Your task to perform on an android device: change the clock style Image 0: 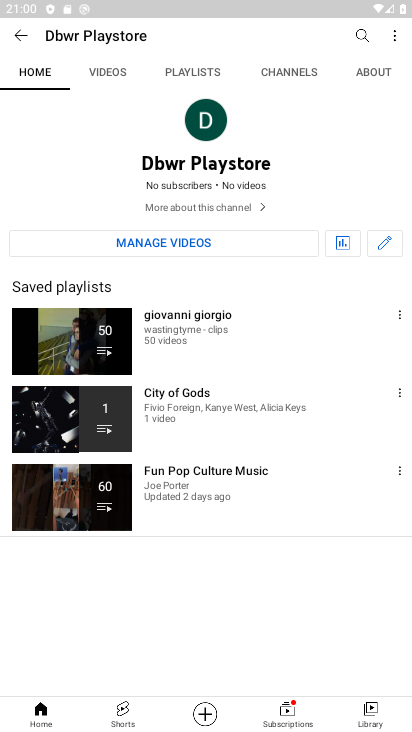
Step 0: press back button
Your task to perform on an android device: change the clock style Image 1: 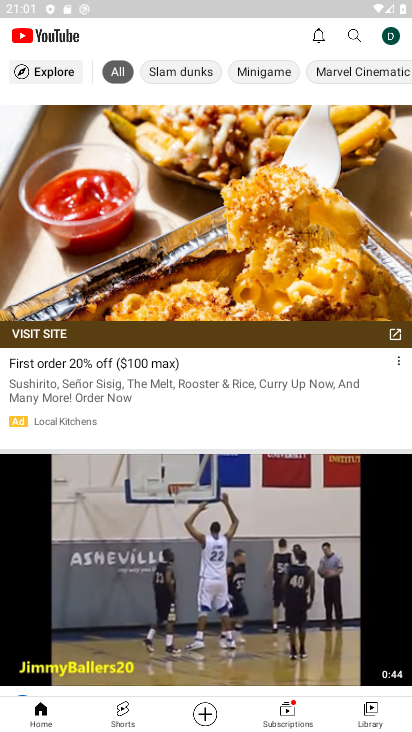
Step 1: press home button
Your task to perform on an android device: change the clock style Image 2: 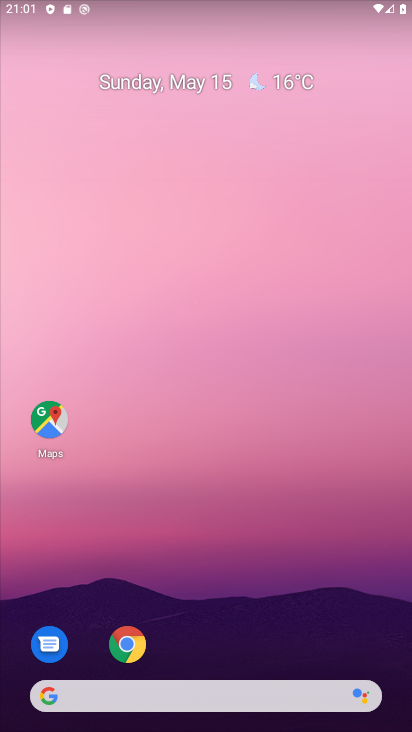
Step 2: drag from (160, 583) to (187, 0)
Your task to perform on an android device: change the clock style Image 3: 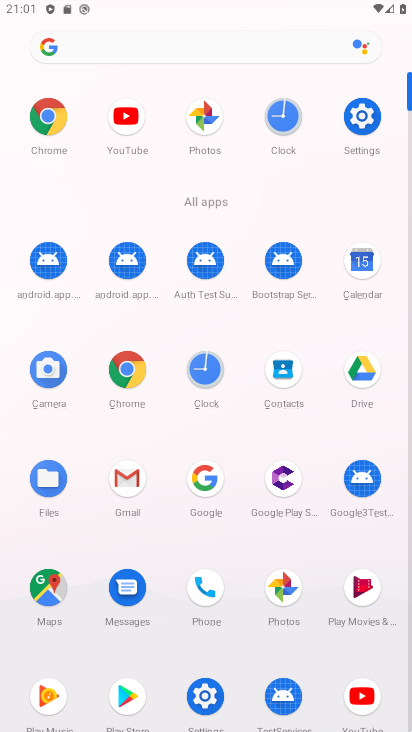
Step 3: click (200, 372)
Your task to perform on an android device: change the clock style Image 4: 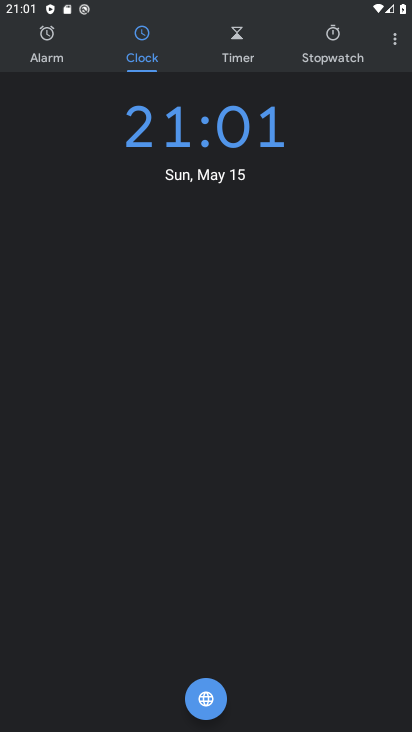
Step 4: click (394, 41)
Your task to perform on an android device: change the clock style Image 5: 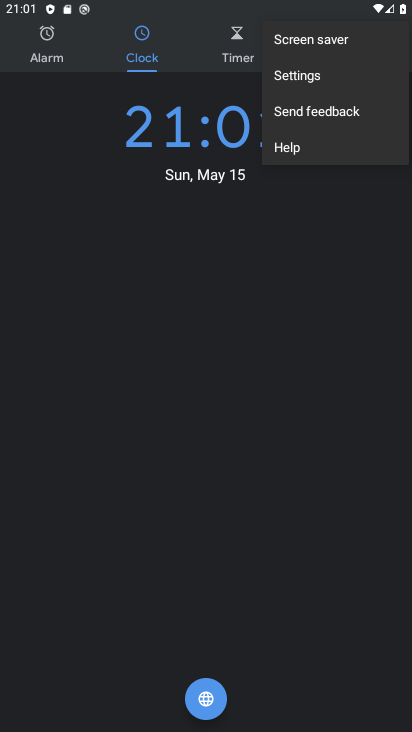
Step 5: click (330, 72)
Your task to perform on an android device: change the clock style Image 6: 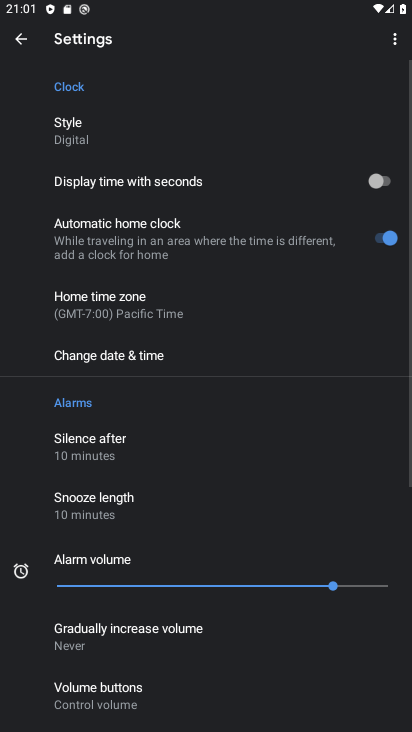
Step 6: click (114, 133)
Your task to perform on an android device: change the clock style Image 7: 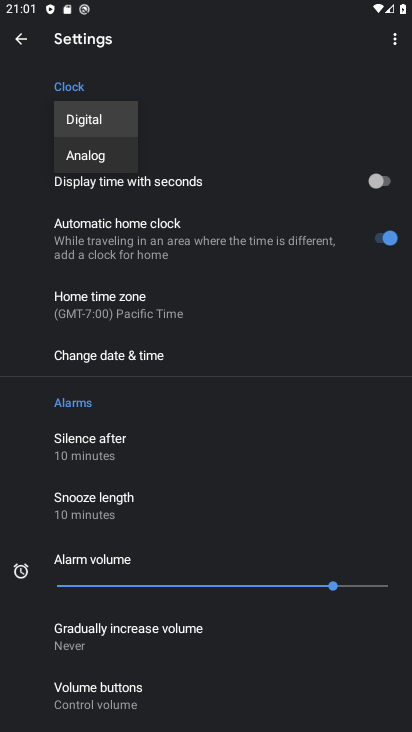
Step 7: click (101, 158)
Your task to perform on an android device: change the clock style Image 8: 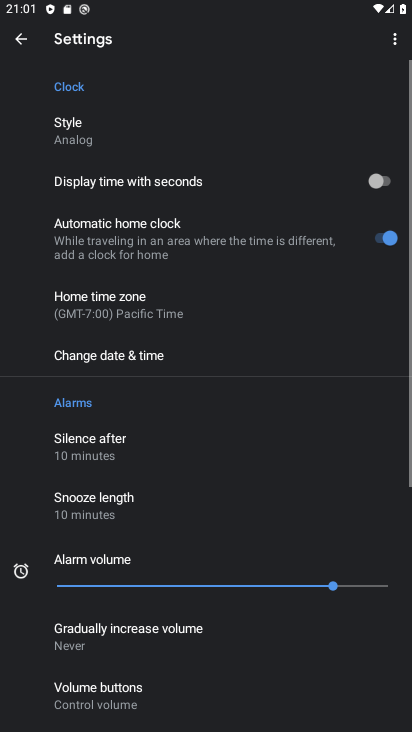
Step 8: task complete